Your task to perform on an android device: Go to accessibility settings Image 0: 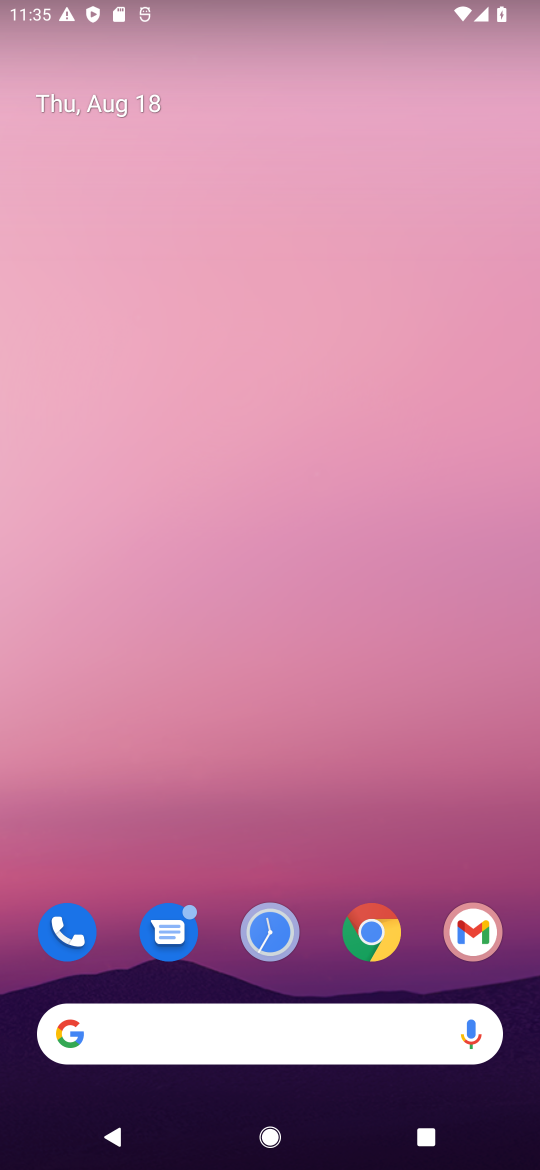
Step 0: drag from (195, 1119) to (287, 339)
Your task to perform on an android device: Go to accessibility settings Image 1: 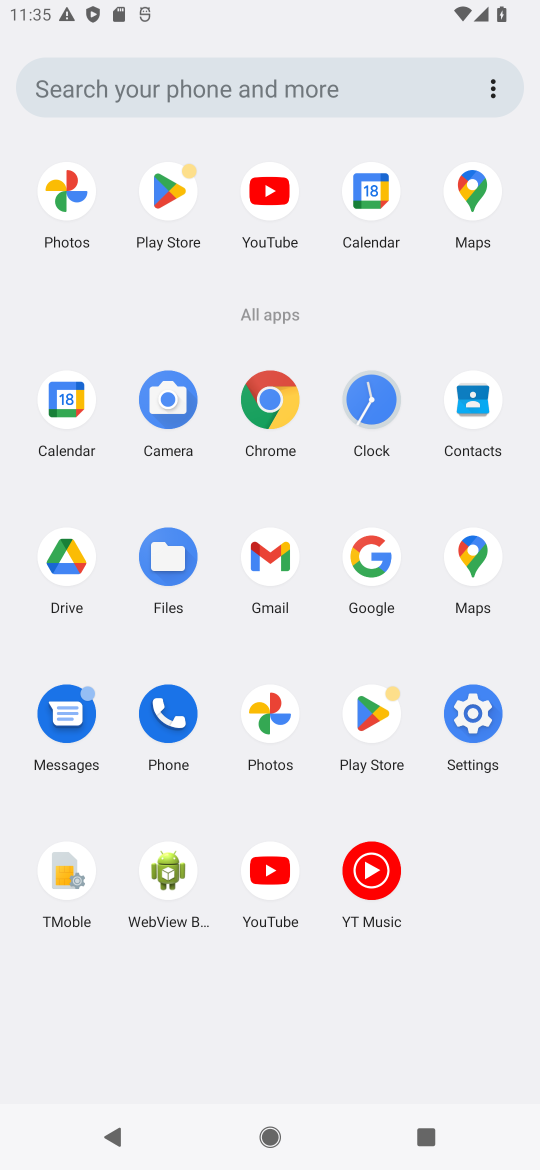
Step 1: click (475, 710)
Your task to perform on an android device: Go to accessibility settings Image 2: 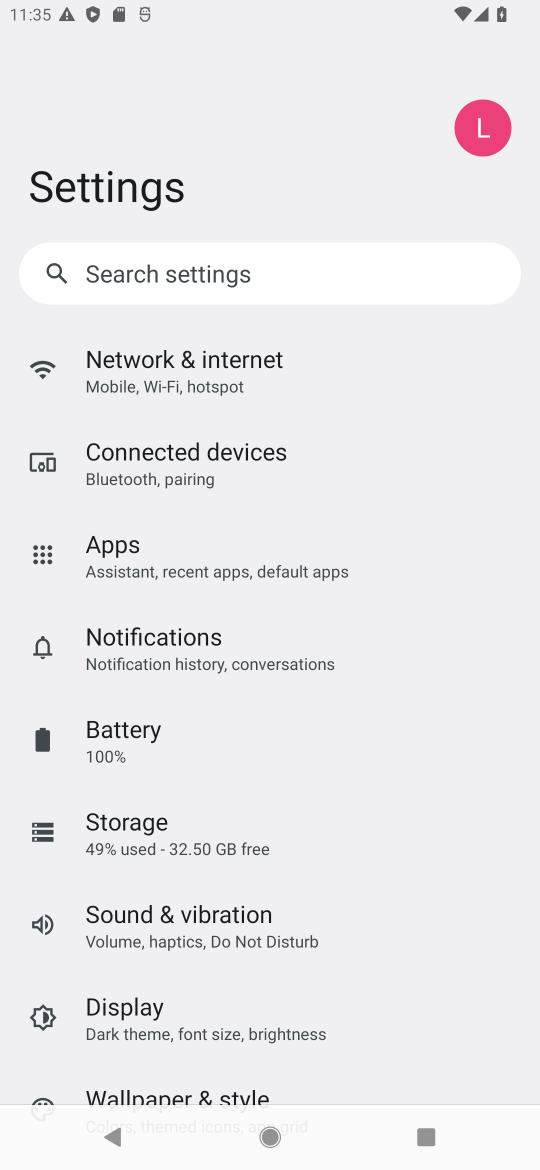
Step 2: drag from (381, 902) to (334, 397)
Your task to perform on an android device: Go to accessibility settings Image 3: 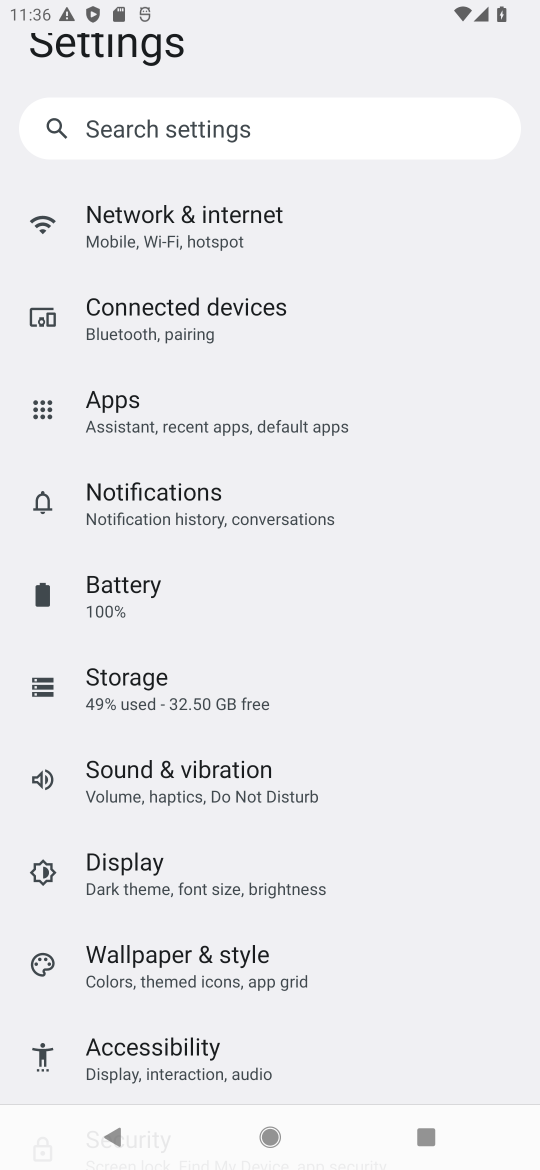
Step 3: click (134, 1053)
Your task to perform on an android device: Go to accessibility settings Image 4: 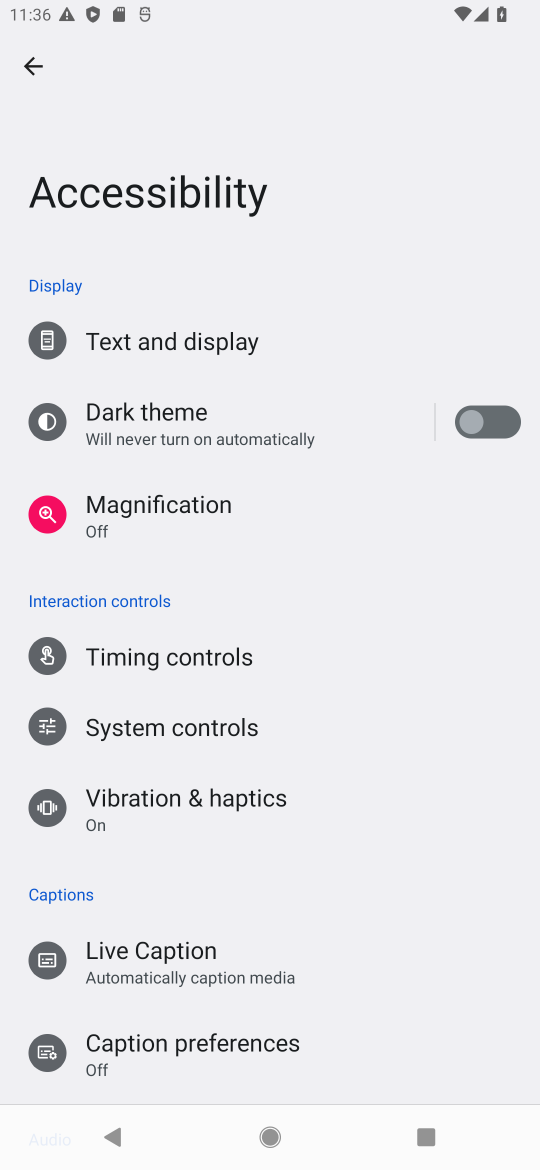
Step 4: task complete